Your task to perform on an android device: Open network settings Image 0: 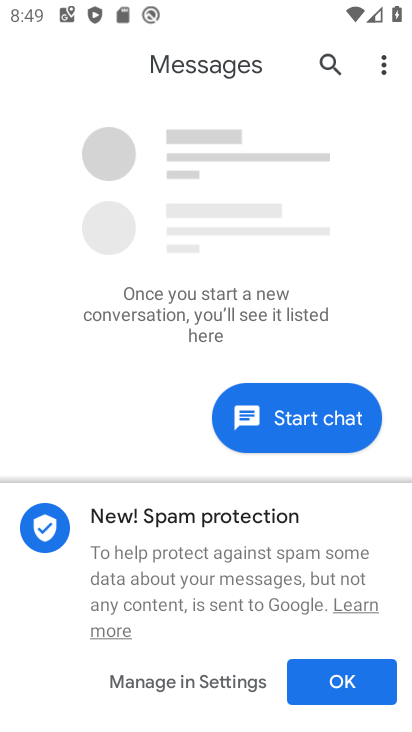
Step 0: press home button
Your task to perform on an android device: Open network settings Image 1: 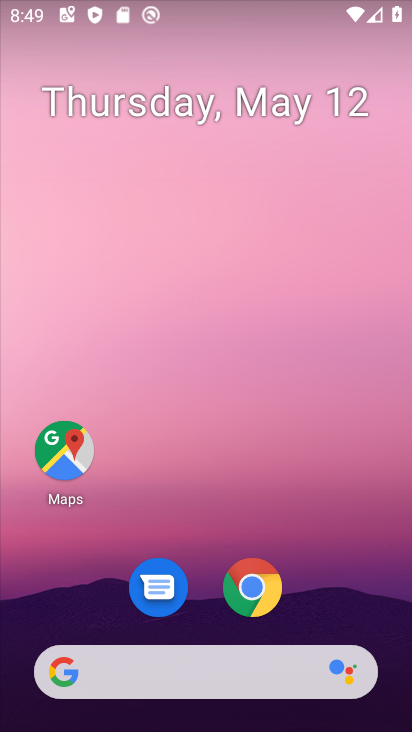
Step 1: drag from (362, 531) to (335, 170)
Your task to perform on an android device: Open network settings Image 2: 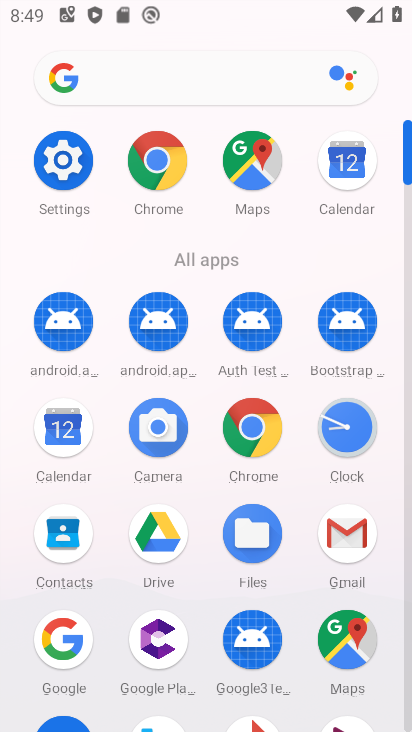
Step 2: click (57, 177)
Your task to perform on an android device: Open network settings Image 3: 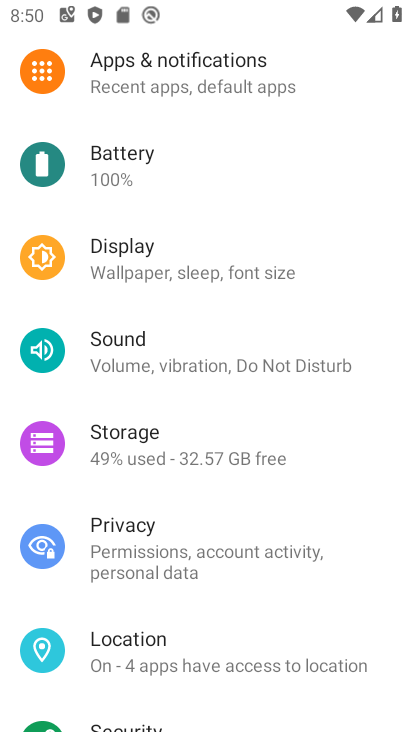
Step 3: drag from (219, 582) to (226, 626)
Your task to perform on an android device: Open network settings Image 4: 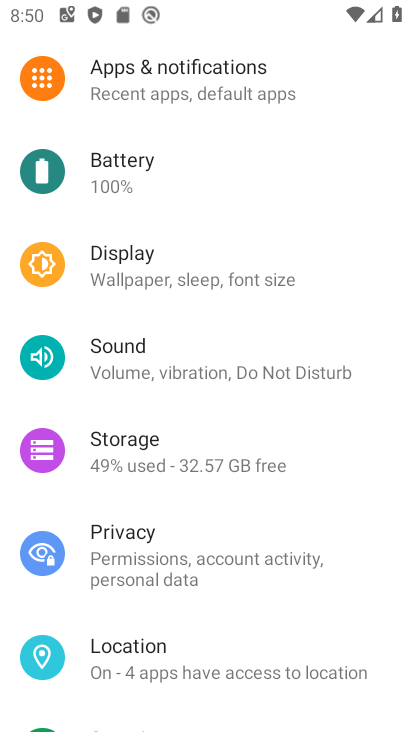
Step 4: drag from (211, 160) to (187, 645)
Your task to perform on an android device: Open network settings Image 5: 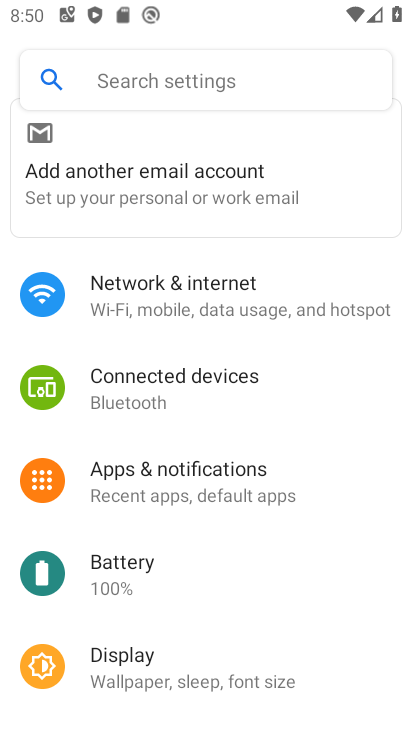
Step 5: click (170, 290)
Your task to perform on an android device: Open network settings Image 6: 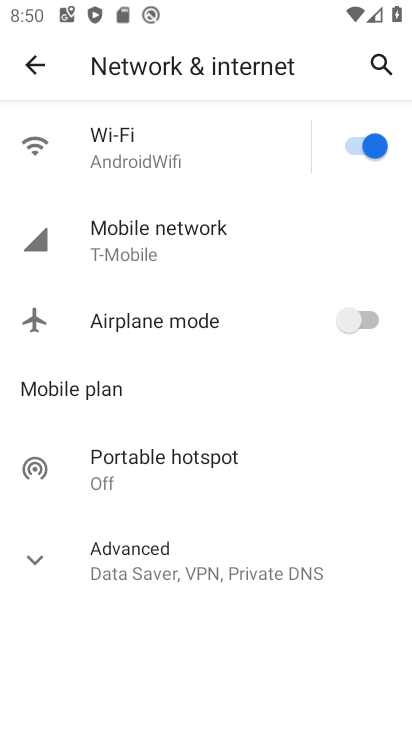
Step 6: click (183, 162)
Your task to perform on an android device: Open network settings Image 7: 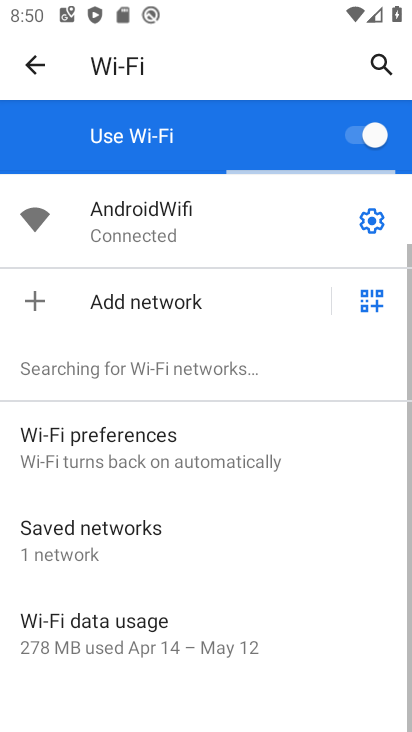
Step 7: click (361, 215)
Your task to perform on an android device: Open network settings Image 8: 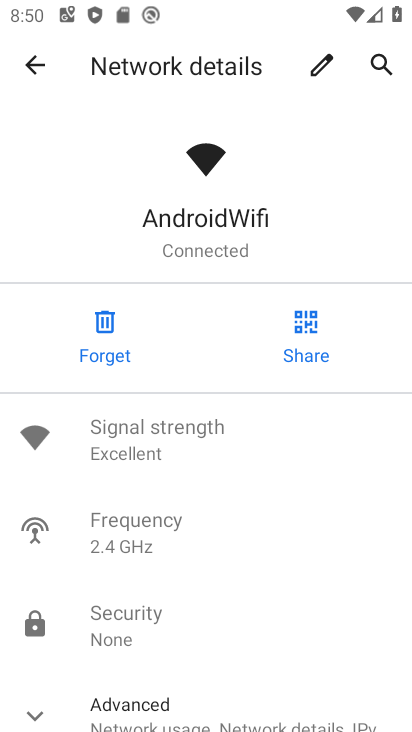
Step 8: task complete